Your task to perform on an android device: Open Wikipedia Image 0: 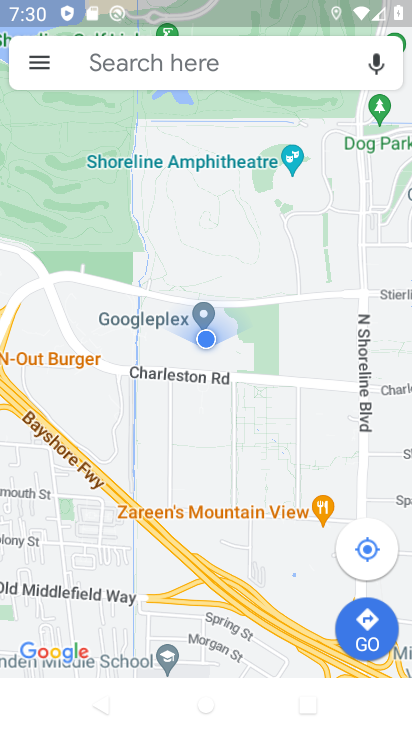
Step 0: press home button
Your task to perform on an android device: Open Wikipedia Image 1: 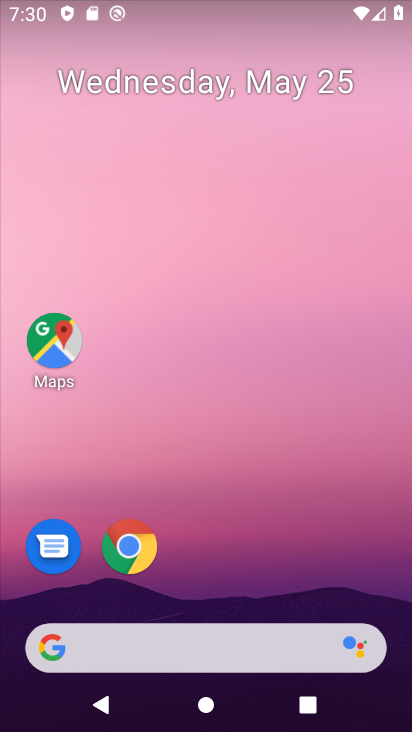
Step 1: drag from (380, 569) to (376, 114)
Your task to perform on an android device: Open Wikipedia Image 2: 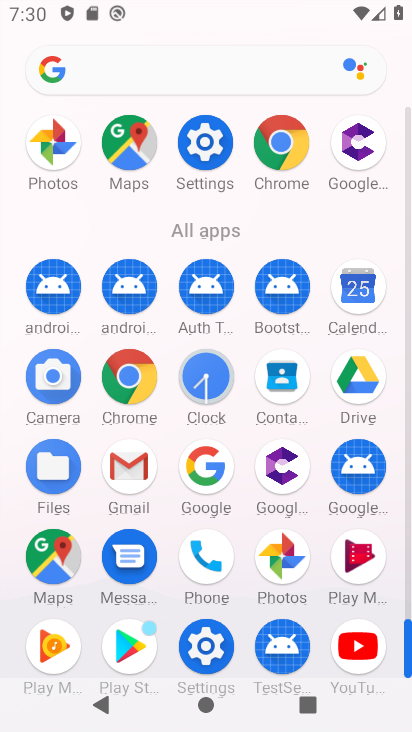
Step 2: click (132, 389)
Your task to perform on an android device: Open Wikipedia Image 3: 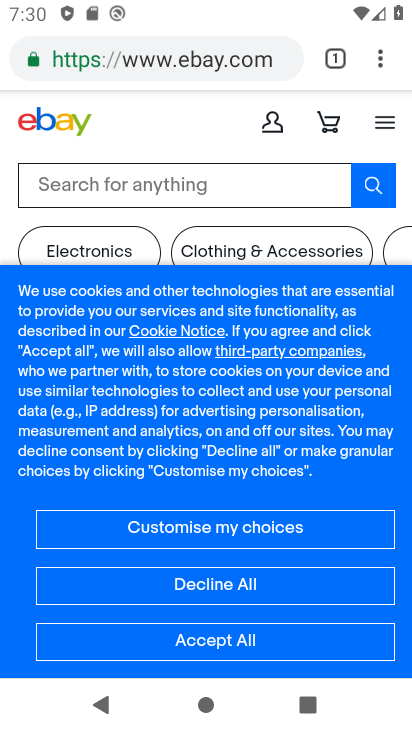
Step 3: click (265, 64)
Your task to perform on an android device: Open Wikipedia Image 4: 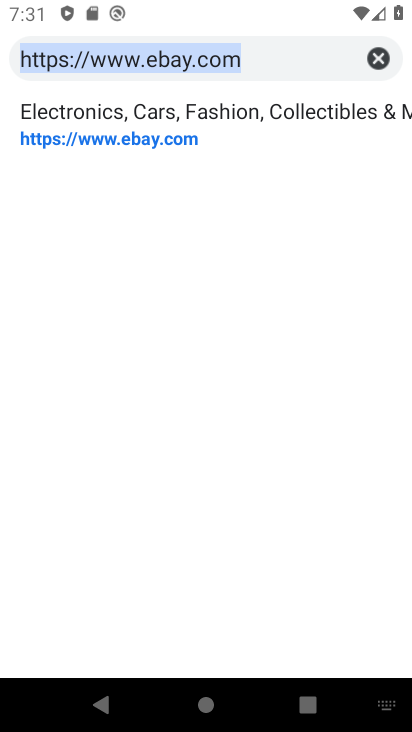
Step 4: click (379, 60)
Your task to perform on an android device: Open Wikipedia Image 5: 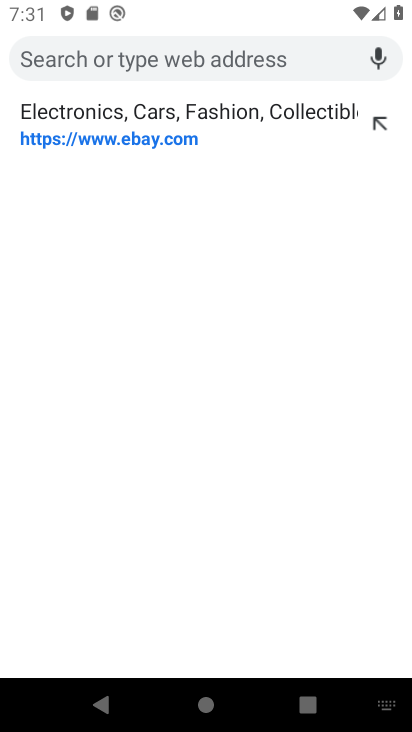
Step 5: type "wikipedia"
Your task to perform on an android device: Open Wikipedia Image 6: 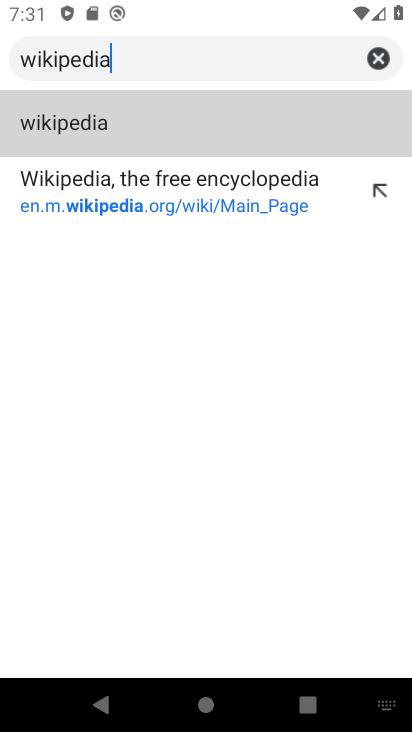
Step 6: click (200, 120)
Your task to perform on an android device: Open Wikipedia Image 7: 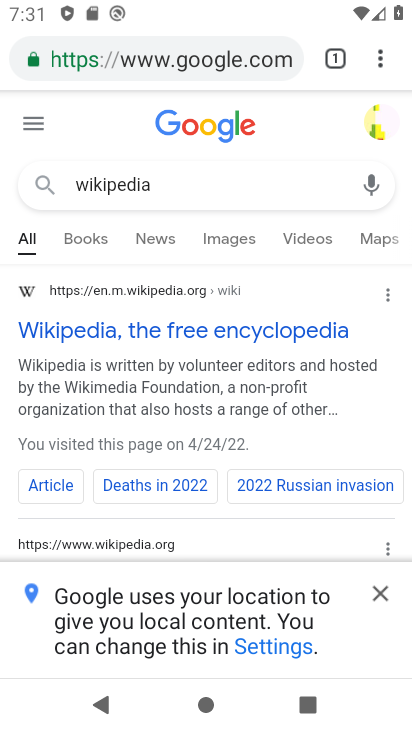
Step 7: task complete